Your task to perform on an android device: Search for pizza restaurants on Maps Image 0: 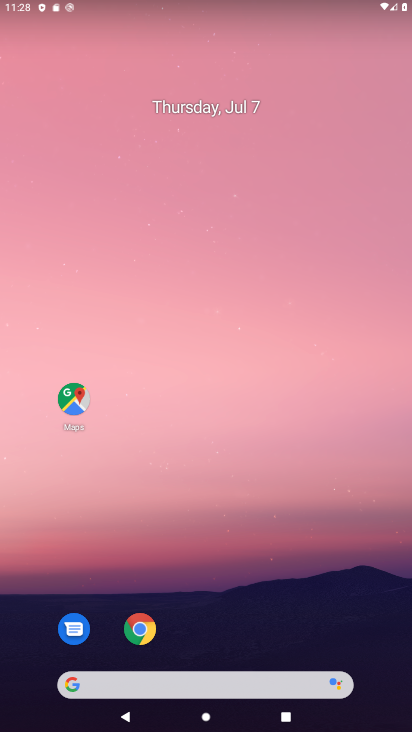
Step 0: click (76, 402)
Your task to perform on an android device: Search for pizza restaurants on Maps Image 1: 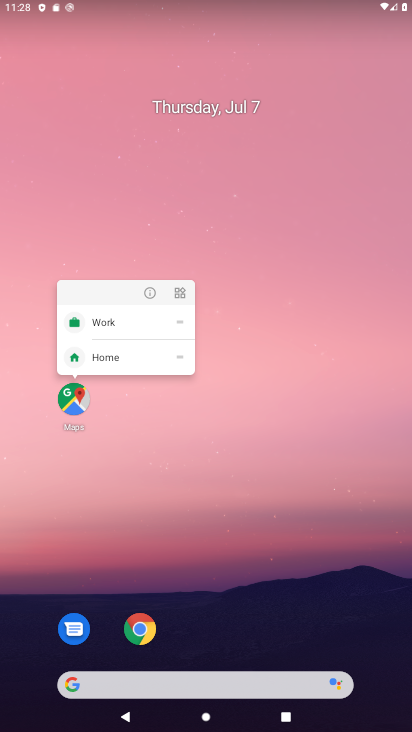
Step 1: click (76, 399)
Your task to perform on an android device: Search for pizza restaurants on Maps Image 2: 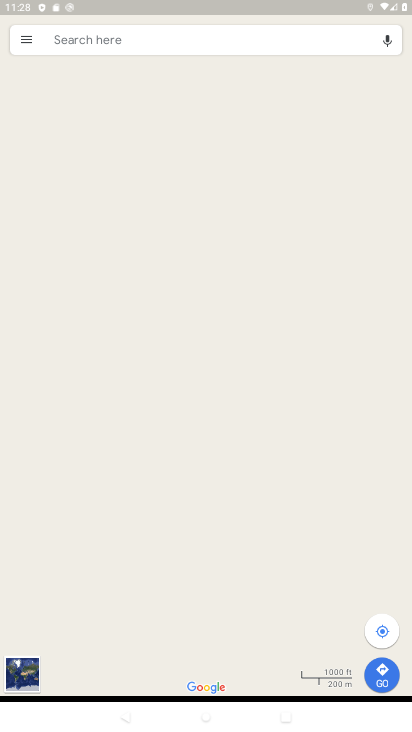
Step 2: click (84, 42)
Your task to perform on an android device: Search for pizza restaurants on Maps Image 3: 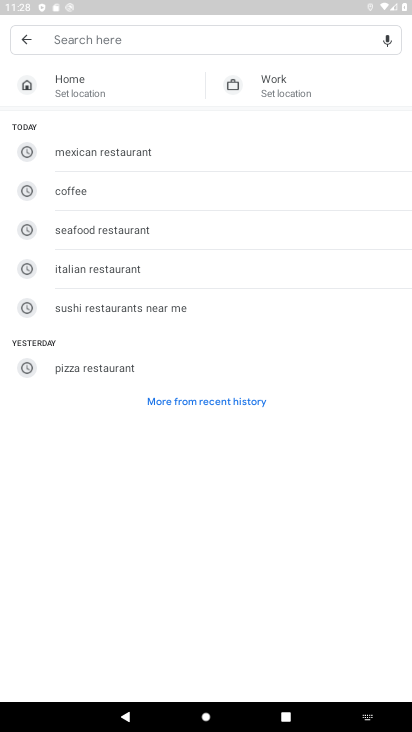
Step 3: type "pizza restaurants"
Your task to perform on an android device: Search for pizza restaurants on Maps Image 4: 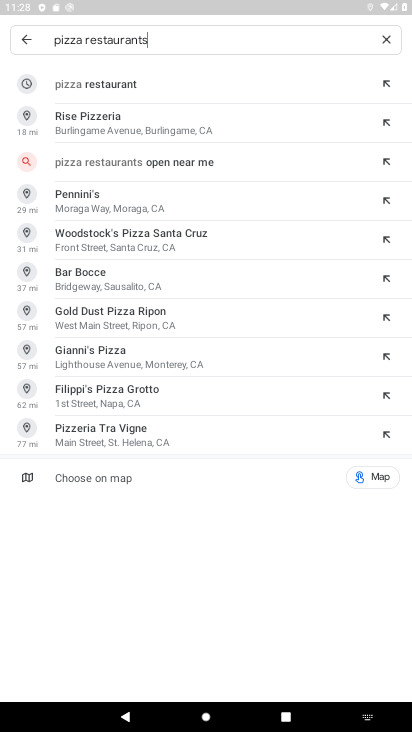
Step 4: click (94, 80)
Your task to perform on an android device: Search for pizza restaurants on Maps Image 5: 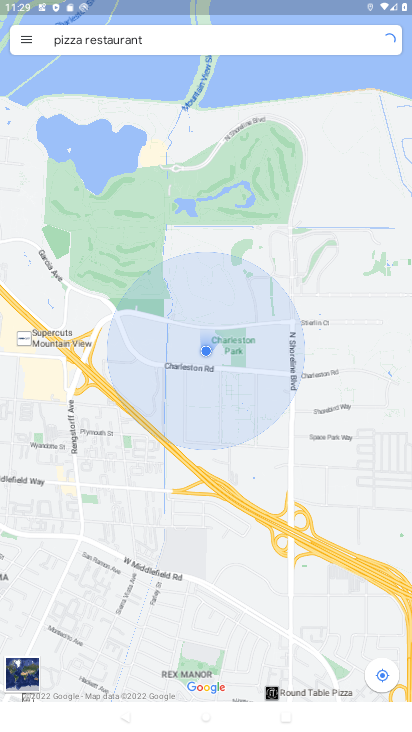
Step 5: task complete